Your task to perform on an android device: Open maps Image 0: 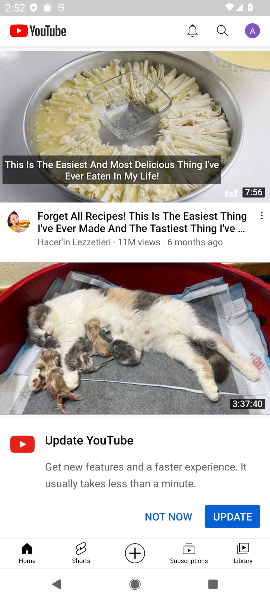
Step 0: press home button
Your task to perform on an android device: Open maps Image 1: 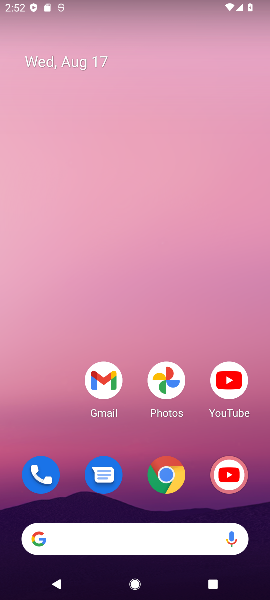
Step 1: drag from (131, 509) to (162, 13)
Your task to perform on an android device: Open maps Image 2: 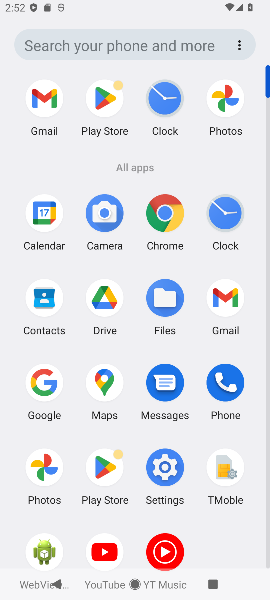
Step 2: click (96, 379)
Your task to perform on an android device: Open maps Image 3: 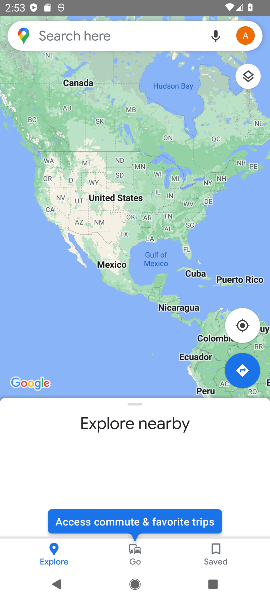
Step 3: task complete